Your task to perform on an android device: set default search engine in the chrome app Image 0: 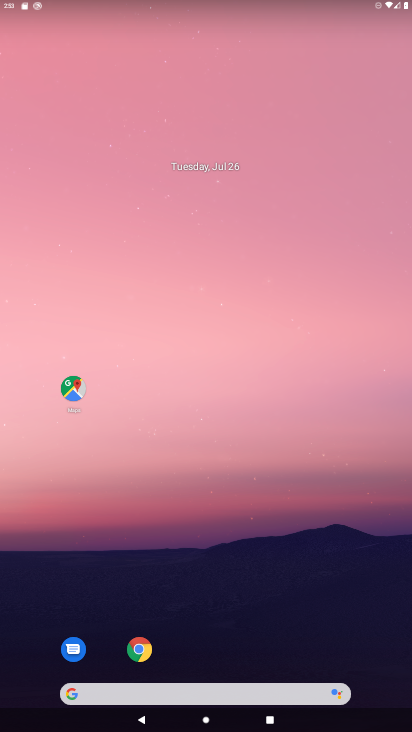
Step 0: click (143, 641)
Your task to perform on an android device: set default search engine in the chrome app Image 1: 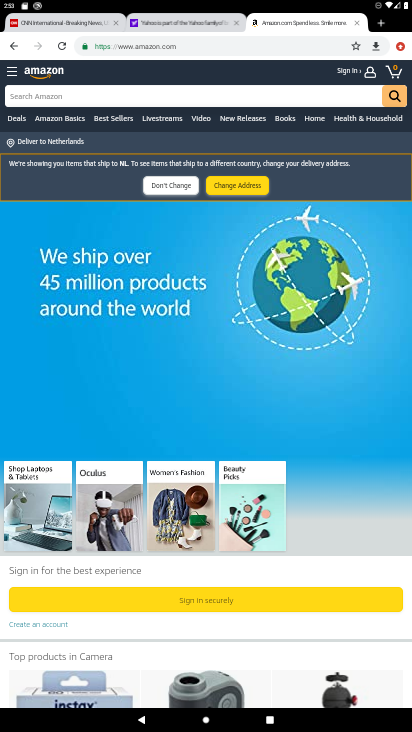
Step 1: click (398, 51)
Your task to perform on an android device: set default search engine in the chrome app Image 2: 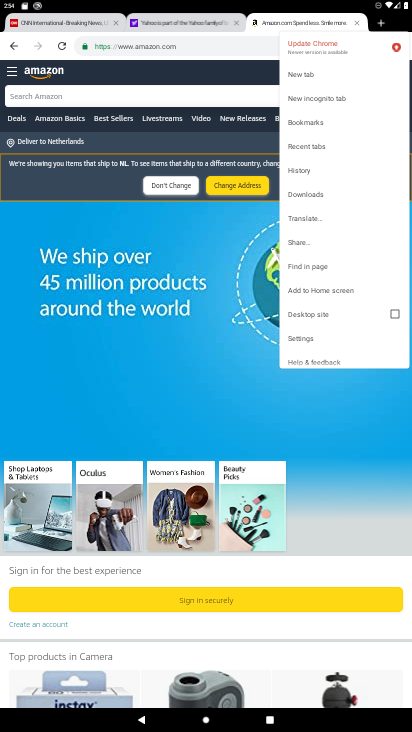
Step 2: click (299, 343)
Your task to perform on an android device: set default search engine in the chrome app Image 3: 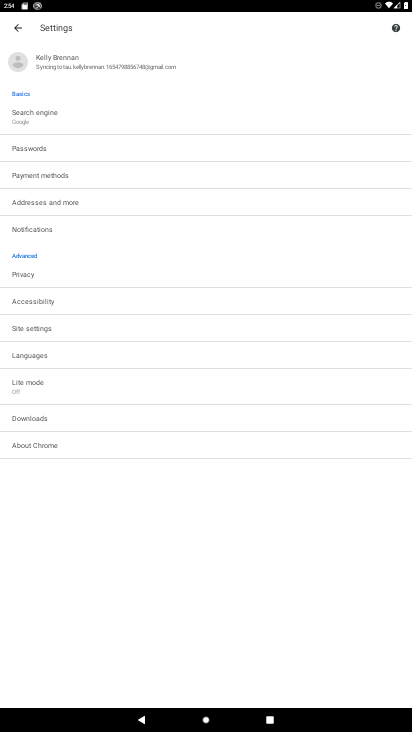
Step 3: click (19, 123)
Your task to perform on an android device: set default search engine in the chrome app Image 4: 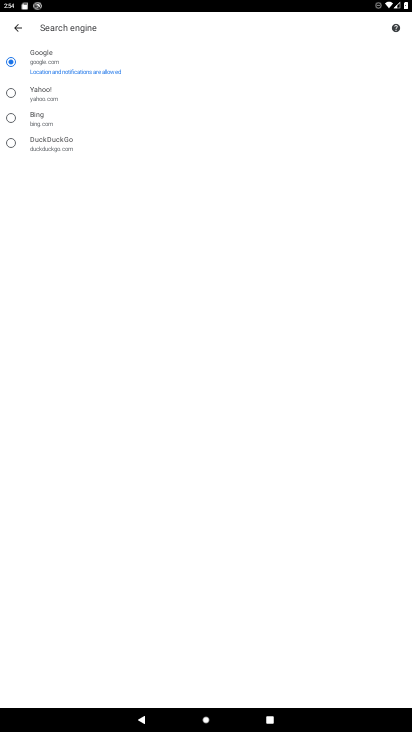
Step 4: click (19, 123)
Your task to perform on an android device: set default search engine in the chrome app Image 5: 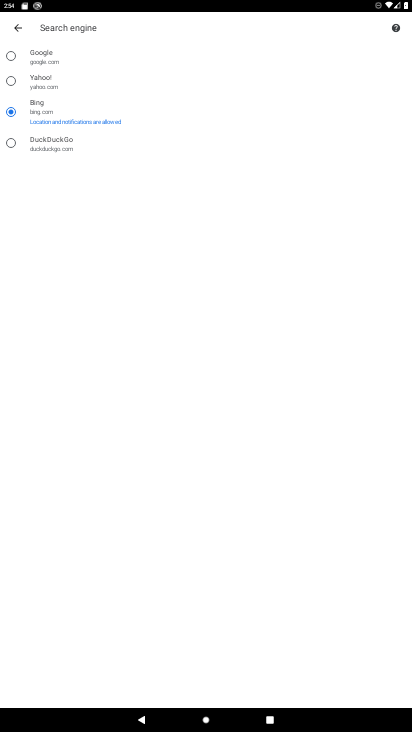
Step 5: task complete